Your task to perform on an android device: Open maps Image 0: 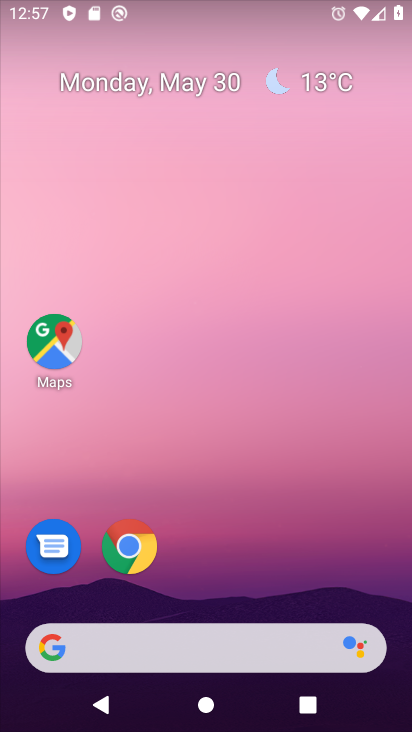
Step 0: press home button
Your task to perform on an android device: Open maps Image 1: 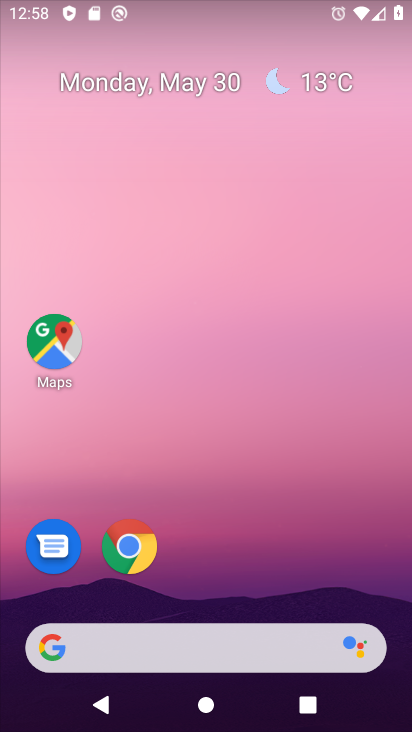
Step 1: click (63, 356)
Your task to perform on an android device: Open maps Image 2: 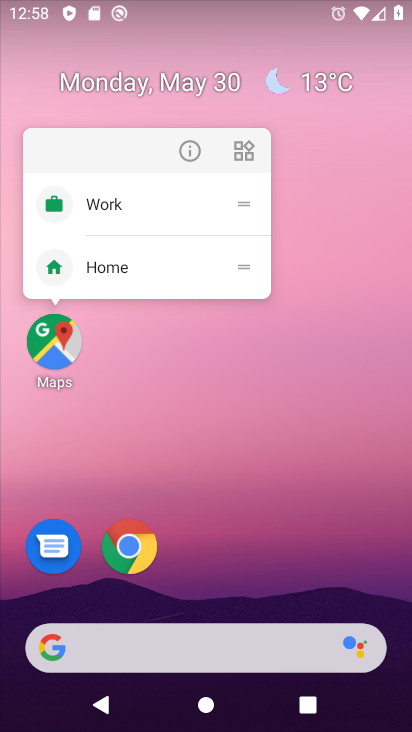
Step 2: click (66, 357)
Your task to perform on an android device: Open maps Image 3: 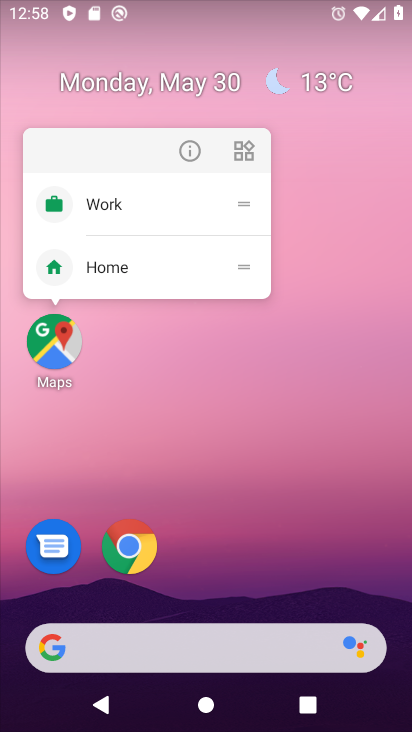
Step 3: click (302, 444)
Your task to perform on an android device: Open maps Image 4: 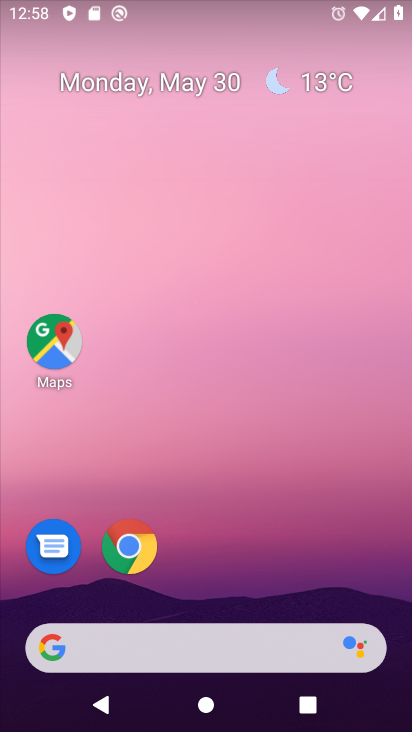
Step 4: drag from (279, 603) to (300, 150)
Your task to perform on an android device: Open maps Image 5: 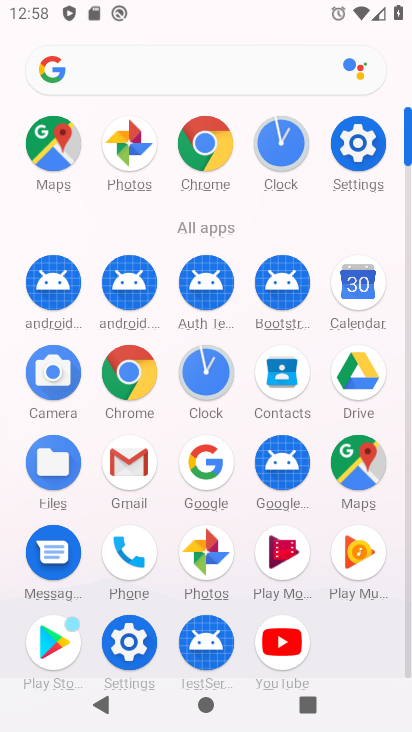
Step 5: click (51, 157)
Your task to perform on an android device: Open maps Image 6: 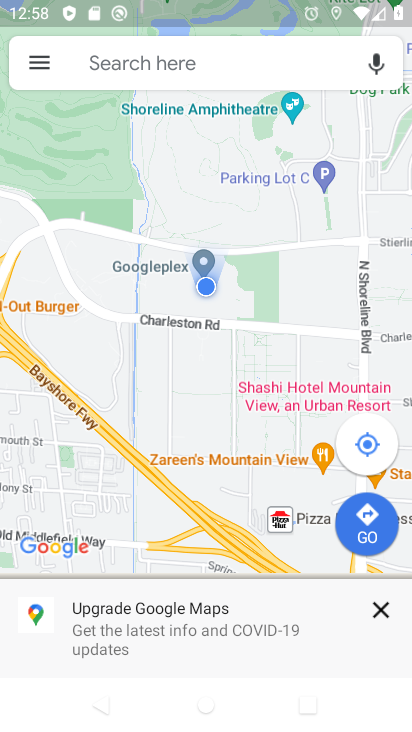
Step 6: task complete